Your task to perform on an android device: Open Youtube and go to "Your channel" Image 0: 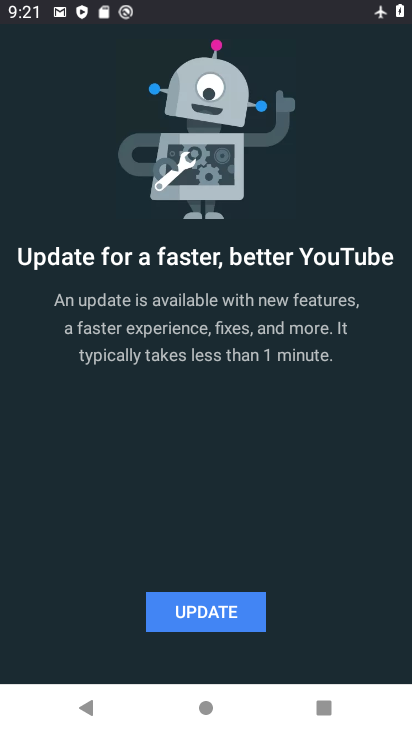
Step 0: task impossible